Your task to perform on an android device: turn on translation in the chrome app Image 0: 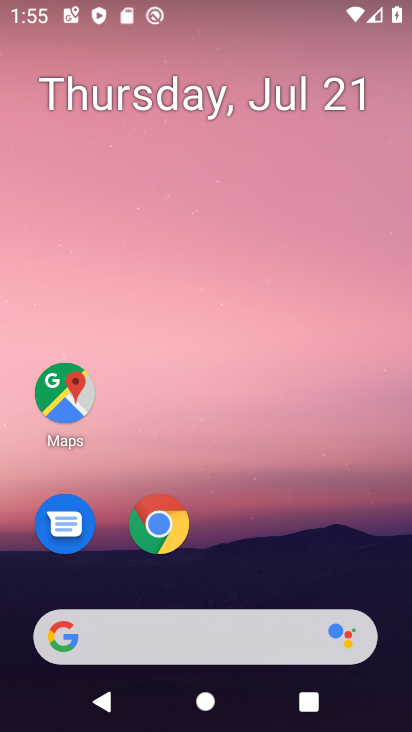
Step 0: click (159, 537)
Your task to perform on an android device: turn on translation in the chrome app Image 1: 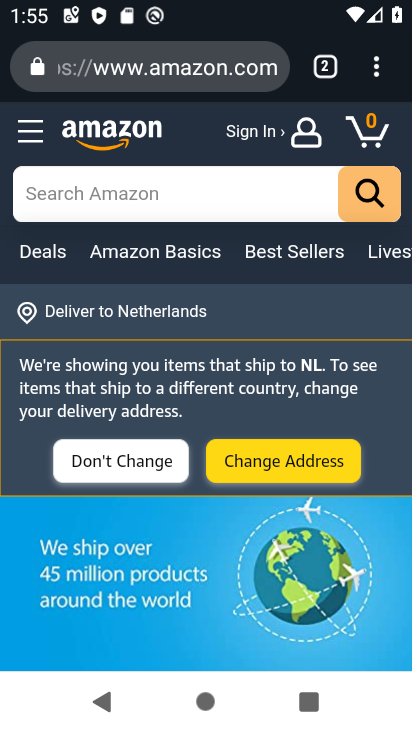
Step 1: click (378, 74)
Your task to perform on an android device: turn on translation in the chrome app Image 2: 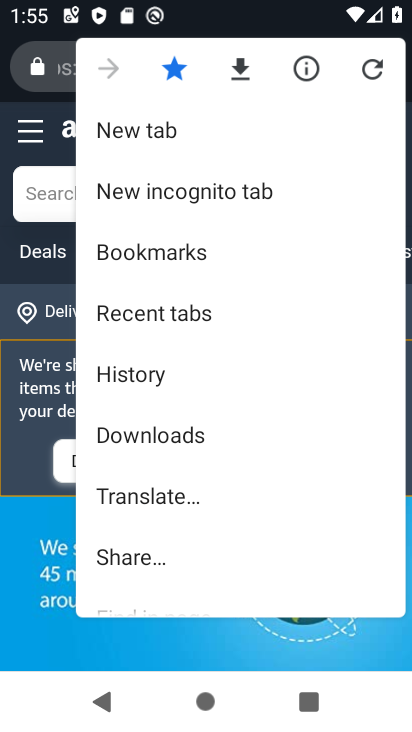
Step 2: drag from (201, 488) to (218, 79)
Your task to perform on an android device: turn on translation in the chrome app Image 3: 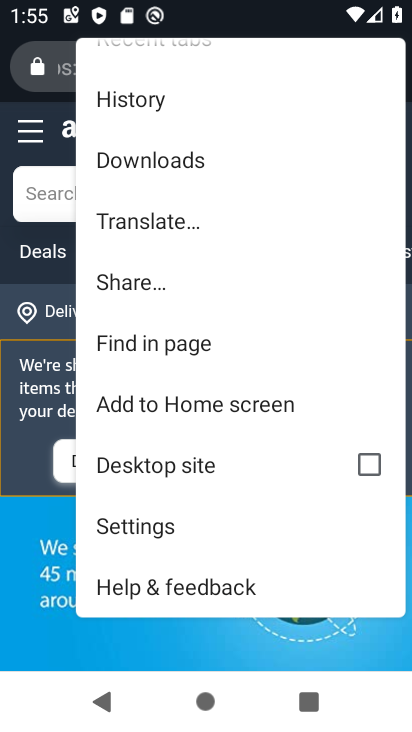
Step 3: click (152, 527)
Your task to perform on an android device: turn on translation in the chrome app Image 4: 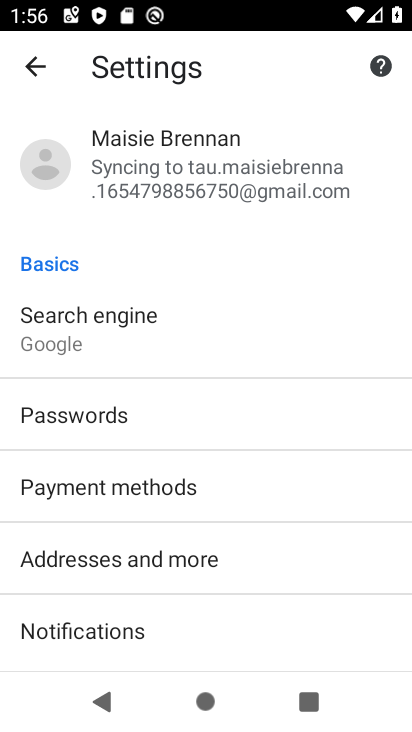
Step 4: drag from (228, 510) to (248, 142)
Your task to perform on an android device: turn on translation in the chrome app Image 5: 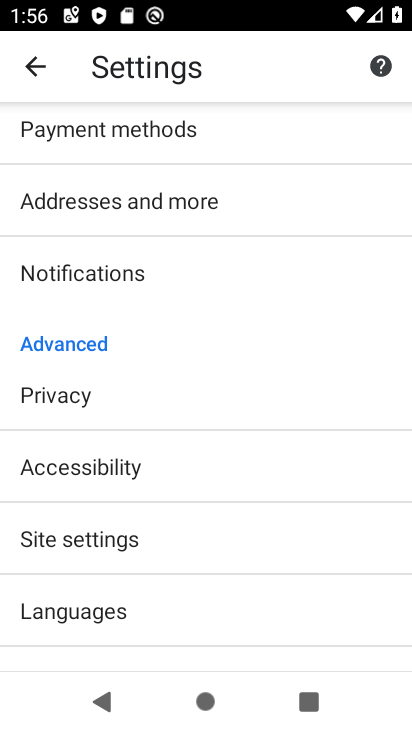
Step 5: click (142, 618)
Your task to perform on an android device: turn on translation in the chrome app Image 6: 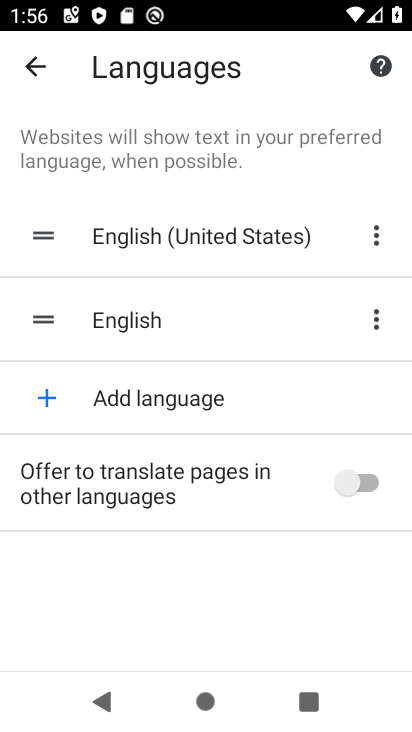
Step 6: click (361, 457)
Your task to perform on an android device: turn on translation in the chrome app Image 7: 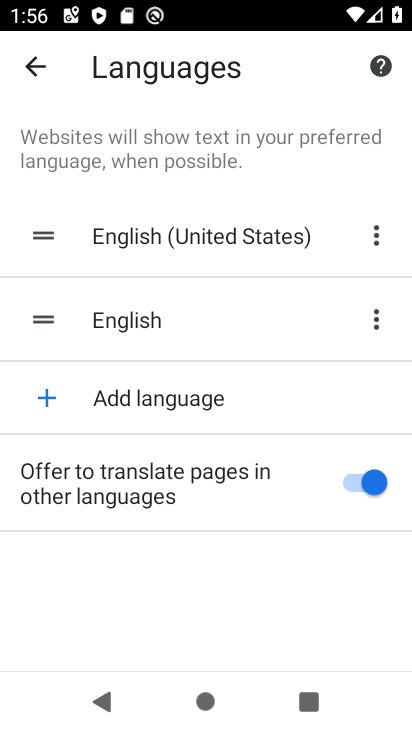
Step 7: task complete